Your task to perform on an android device: Open the calendar and show me this week's events Image 0: 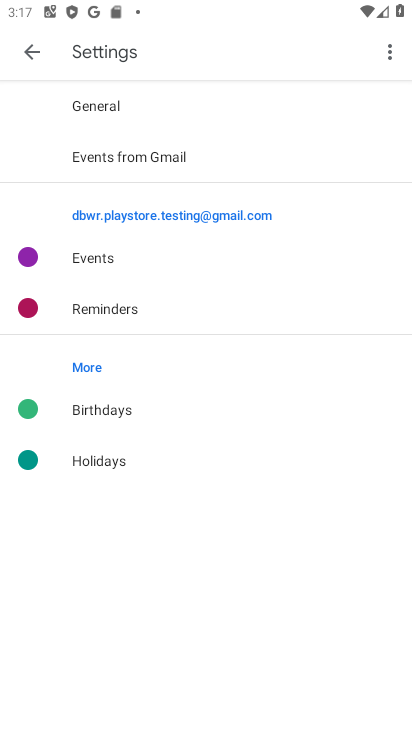
Step 0: press home button
Your task to perform on an android device: Open the calendar and show me this week's events Image 1: 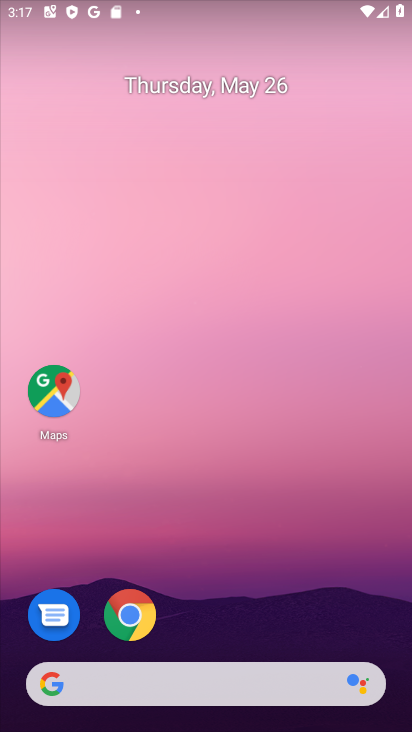
Step 1: drag from (208, 644) to (263, 62)
Your task to perform on an android device: Open the calendar and show me this week's events Image 2: 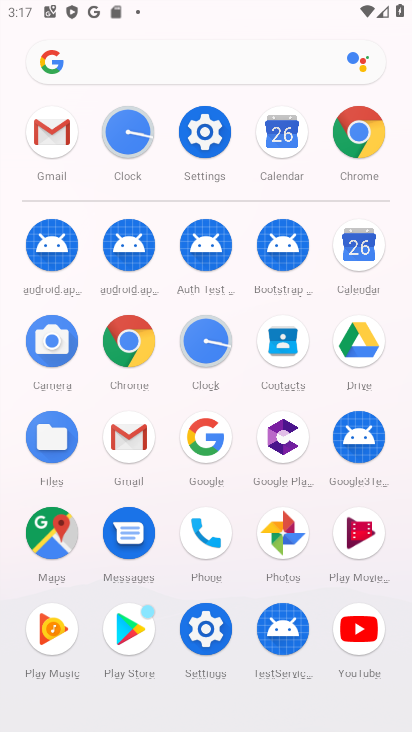
Step 2: click (275, 153)
Your task to perform on an android device: Open the calendar and show me this week's events Image 3: 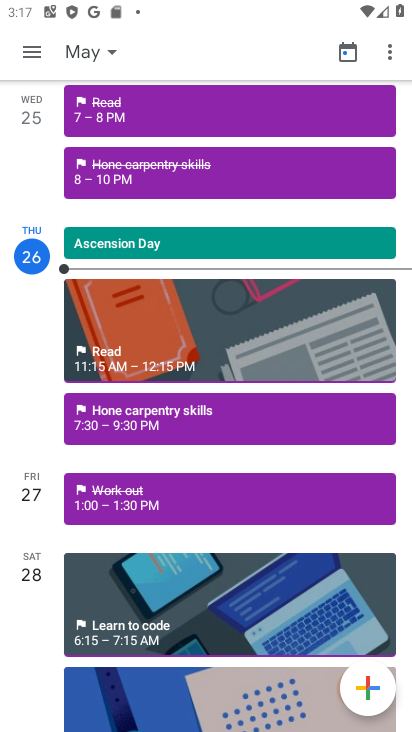
Step 3: click (36, 52)
Your task to perform on an android device: Open the calendar and show me this week's events Image 4: 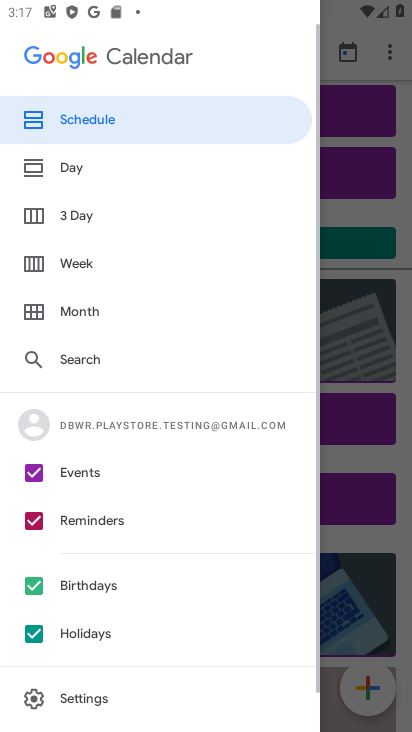
Step 4: click (75, 265)
Your task to perform on an android device: Open the calendar and show me this week's events Image 5: 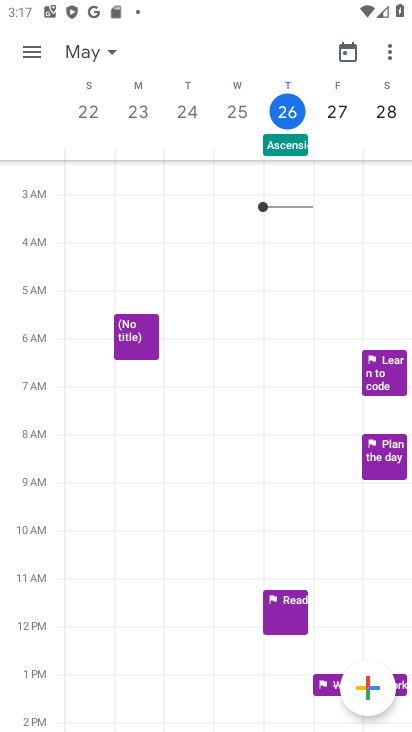
Step 5: task complete